Your task to perform on an android device: Show me productivity apps on the Play Store Image 0: 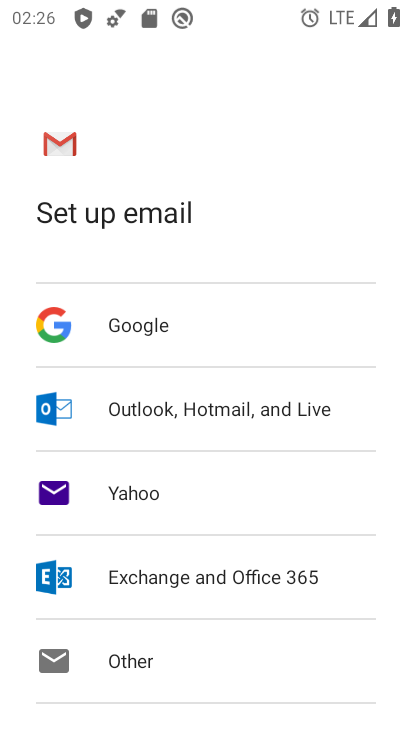
Step 0: press home button
Your task to perform on an android device: Show me productivity apps on the Play Store Image 1: 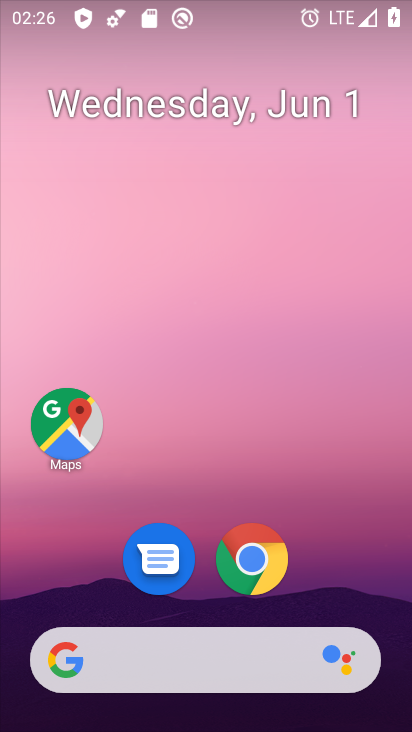
Step 1: drag from (311, 602) to (322, 161)
Your task to perform on an android device: Show me productivity apps on the Play Store Image 2: 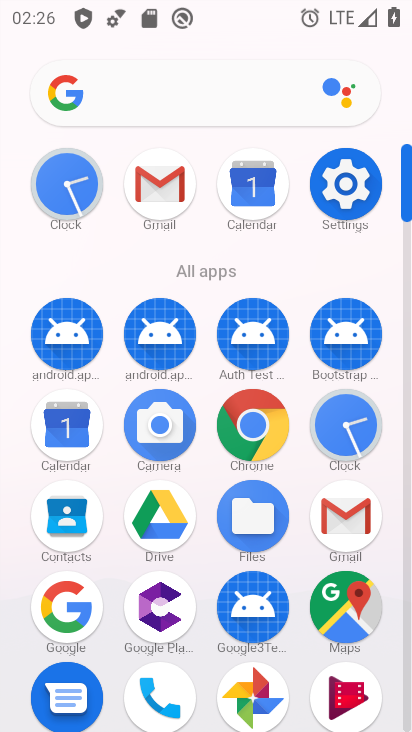
Step 2: drag from (391, 647) to (410, 231)
Your task to perform on an android device: Show me productivity apps on the Play Store Image 3: 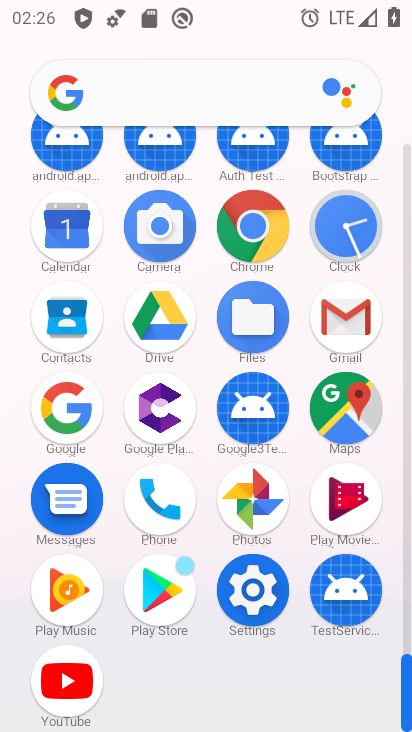
Step 3: click (166, 588)
Your task to perform on an android device: Show me productivity apps on the Play Store Image 4: 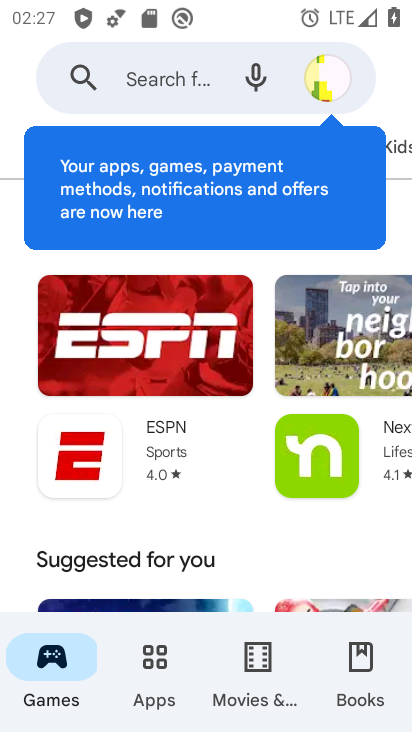
Step 4: click (155, 663)
Your task to perform on an android device: Show me productivity apps on the Play Store Image 5: 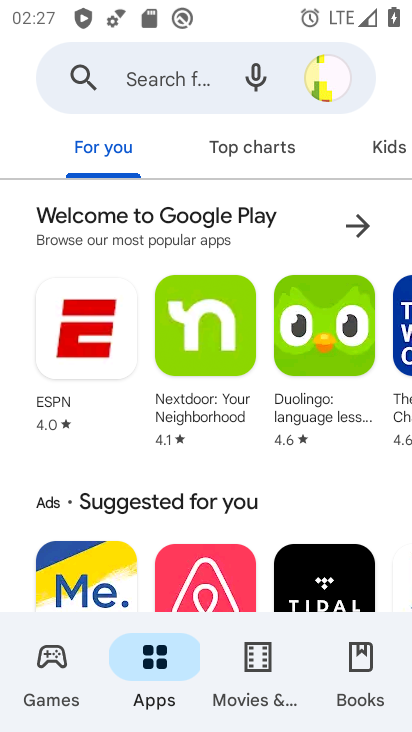
Step 5: drag from (378, 156) to (39, 144)
Your task to perform on an android device: Show me productivity apps on the Play Store Image 6: 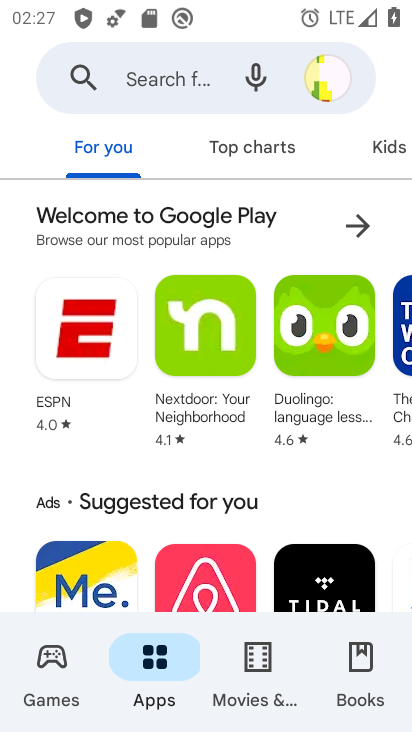
Step 6: drag from (319, 154) to (41, 162)
Your task to perform on an android device: Show me productivity apps on the Play Store Image 7: 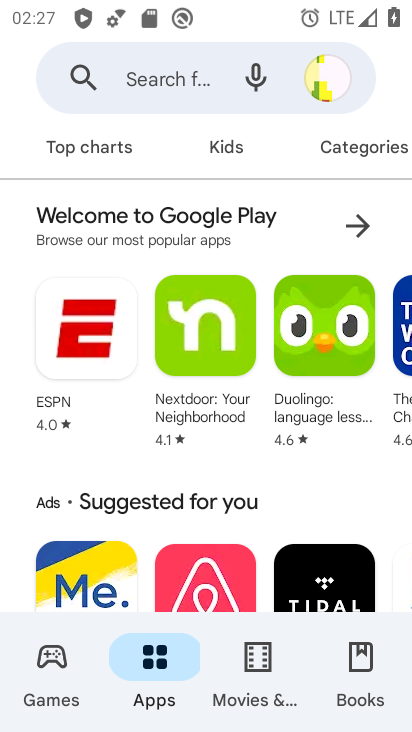
Step 7: click (372, 144)
Your task to perform on an android device: Show me productivity apps on the Play Store Image 8: 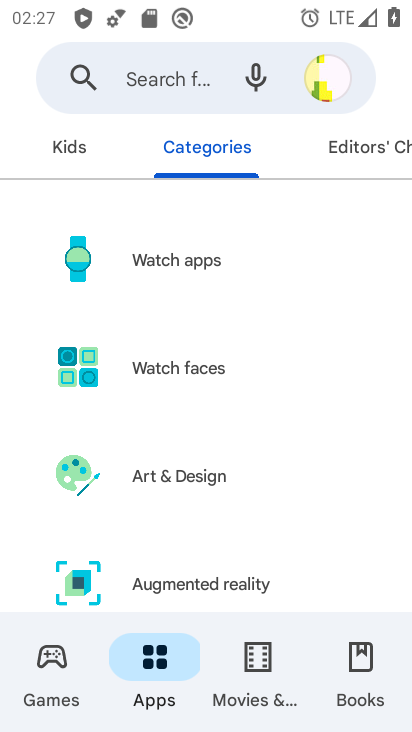
Step 8: drag from (325, 530) to (312, 154)
Your task to perform on an android device: Show me productivity apps on the Play Store Image 9: 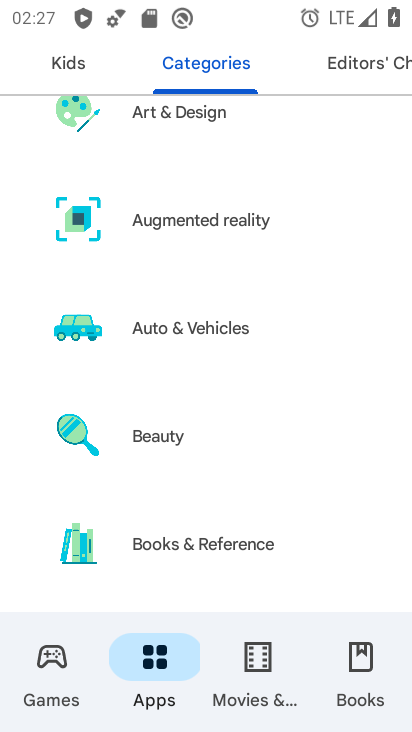
Step 9: drag from (349, 548) to (341, 151)
Your task to perform on an android device: Show me productivity apps on the Play Store Image 10: 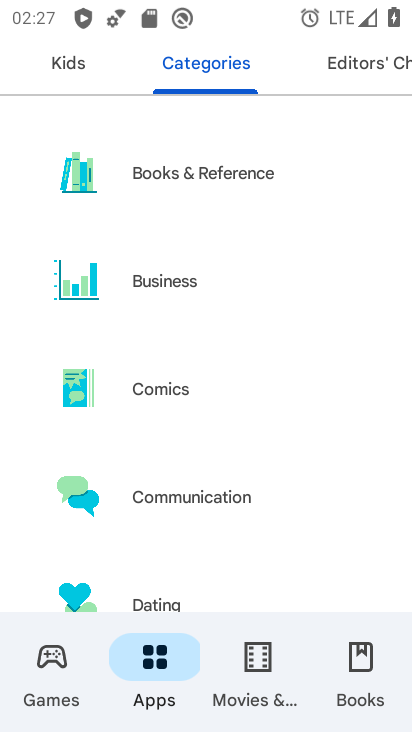
Step 10: drag from (338, 519) to (342, 163)
Your task to perform on an android device: Show me productivity apps on the Play Store Image 11: 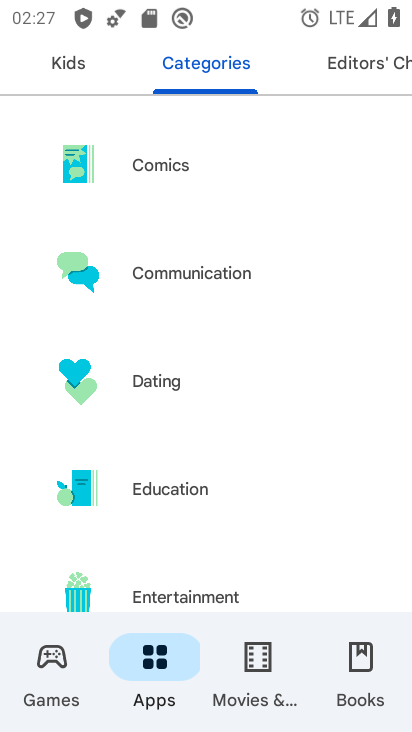
Step 11: drag from (295, 519) to (304, 194)
Your task to perform on an android device: Show me productivity apps on the Play Store Image 12: 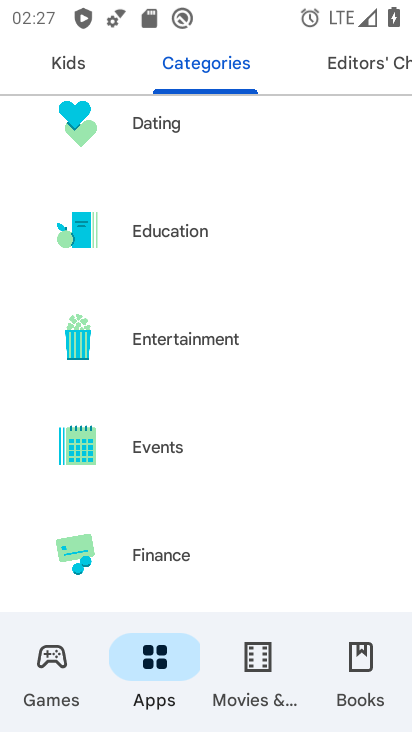
Step 12: drag from (300, 495) to (311, 188)
Your task to perform on an android device: Show me productivity apps on the Play Store Image 13: 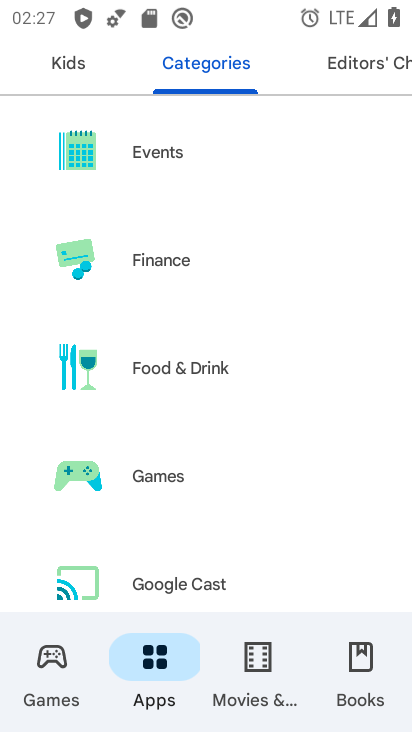
Step 13: drag from (285, 539) to (311, 145)
Your task to perform on an android device: Show me productivity apps on the Play Store Image 14: 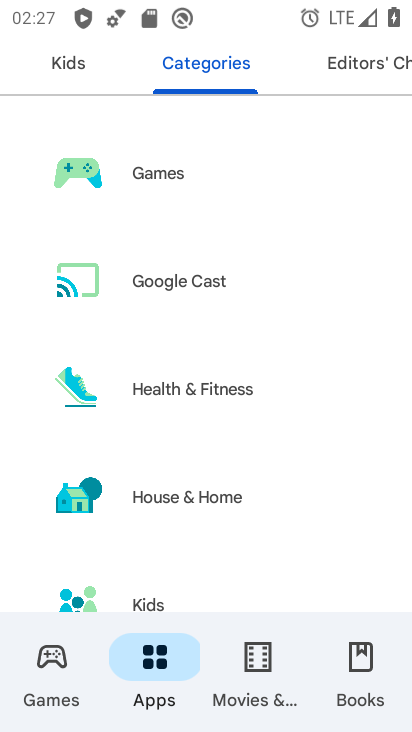
Step 14: drag from (324, 508) to (345, 113)
Your task to perform on an android device: Show me productivity apps on the Play Store Image 15: 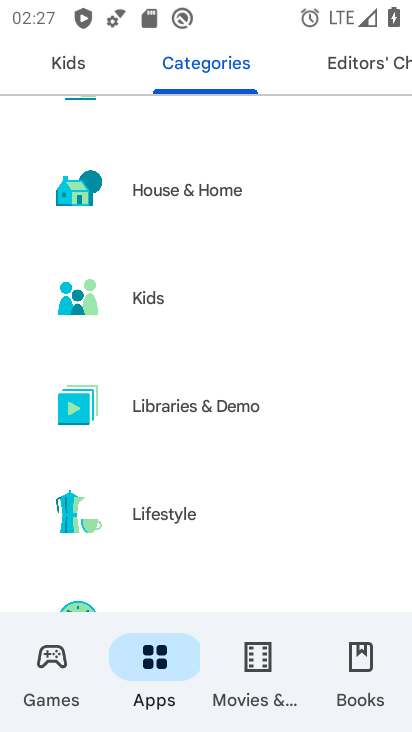
Step 15: drag from (323, 494) to (345, 201)
Your task to perform on an android device: Show me productivity apps on the Play Store Image 16: 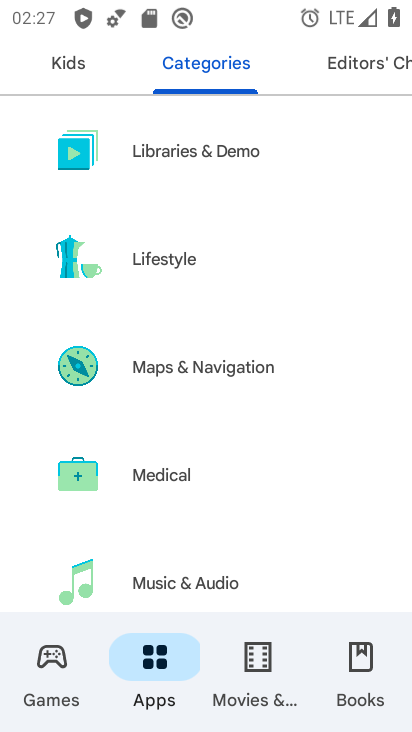
Step 16: drag from (329, 557) to (325, 169)
Your task to perform on an android device: Show me productivity apps on the Play Store Image 17: 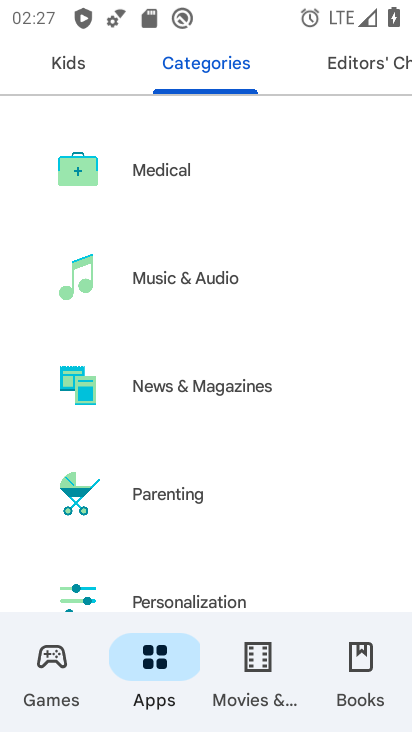
Step 17: drag from (319, 536) to (356, 278)
Your task to perform on an android device: Show me productivity apps on the Play Store Image 18: 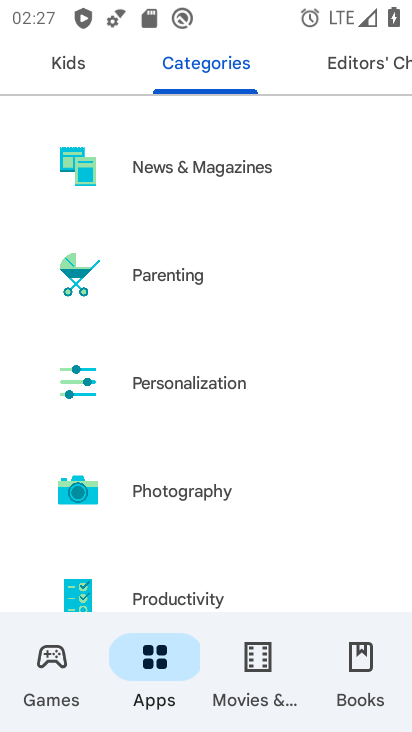
Step 18: drag from (316, 517) to (349, 376)
Your task to perform on an android device: Show me productivity apps on the Play Store Image 19: 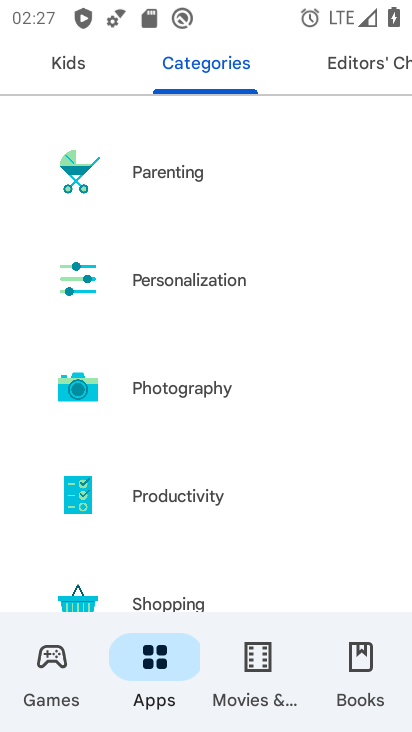
Step 19: click (197, 494)
Your task to perform on an android device: Show me productivity apps on the Play Store Image 20: 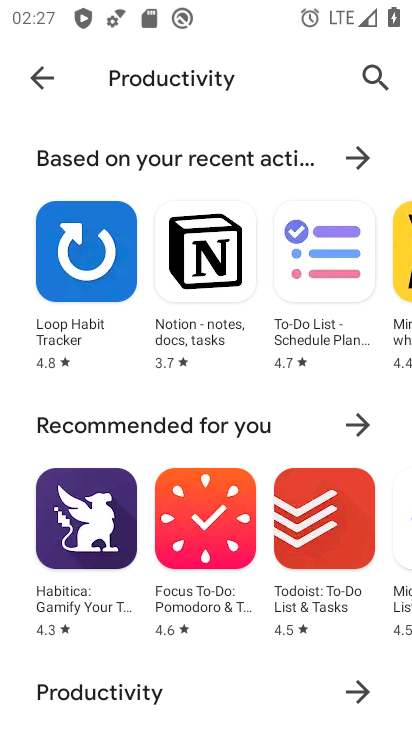
Step 20: task complete